Your task to perform on an android device: Go to Reddit.com Image 0: 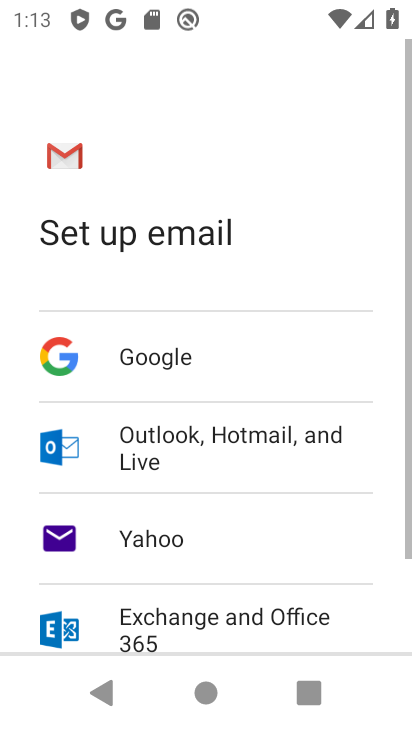
Step 0: press home button
Your task to perform on an android device: Go to Reddit.com Image 1: 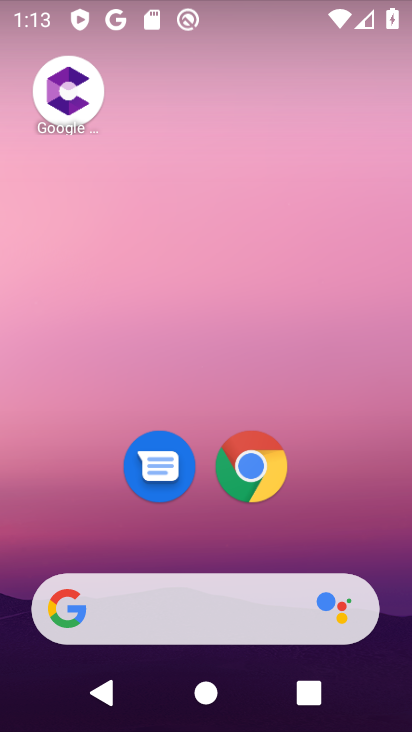
Step 1: click (182, 608)
Your task to perform on an android device: Go to Reddit.com Image 2: 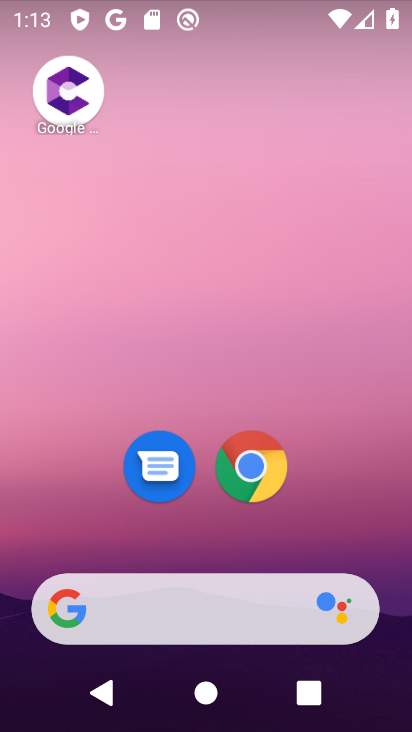
Step 2: click (158, 620)
Your task to perform on an android device: Go to Reddit.com Image 3: 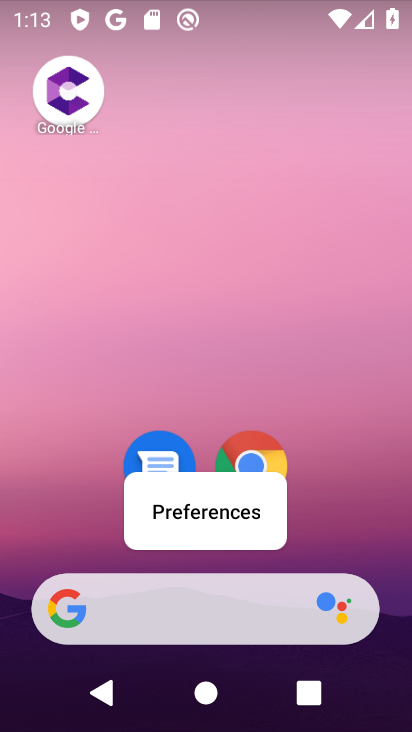
Step 3: click (141, 609)
Your task to perform on an android device: Go to Reddit.com Image 4: 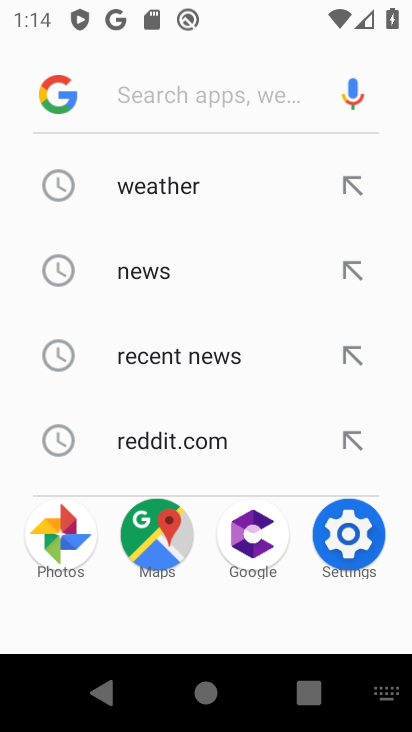
Step 4: type "Reddit.com"
Your task to perform on an android device: Go to Reddit.com Image 5: 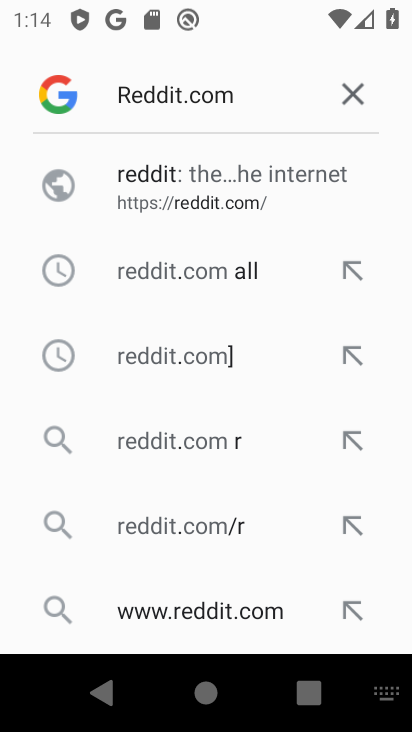
Step 5: click (145, 192)
Your task to perform on an android device: Go to Reddit.com Image 6: 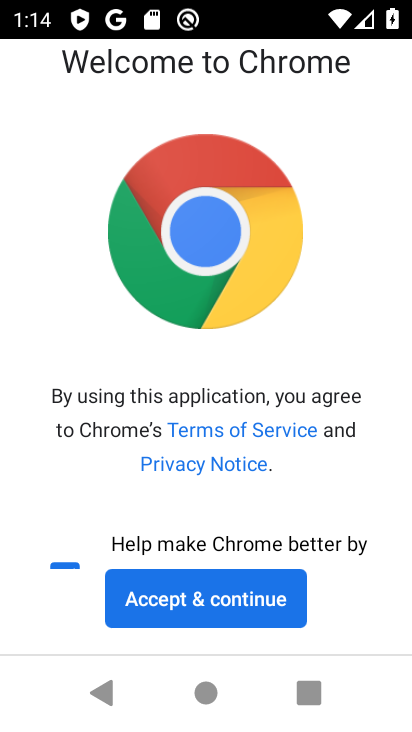
Step 6: click (259, 614)
Your task to perform on an android device: Go to Reddit.com Image 7: 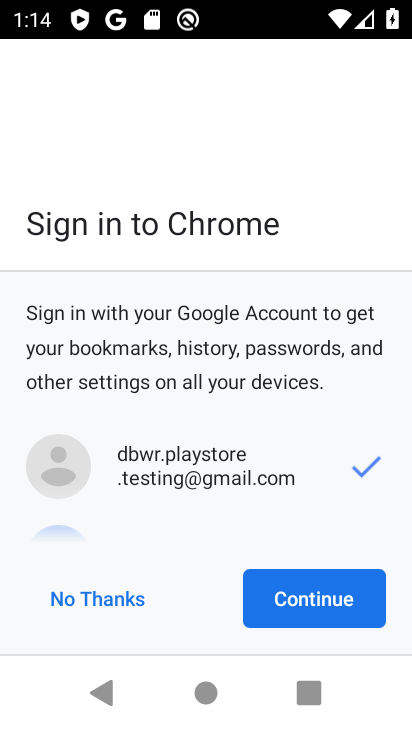
Step 7: click (329, 614)
Your task to perform on an android device: Go to Reddit.com Image 8: 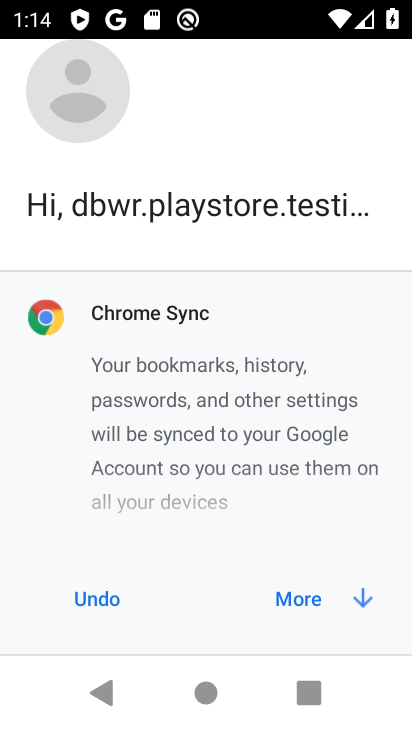
Step 8: click (330, 613)
Your task to perform on an android device: Go to Reddit.com Image 9: 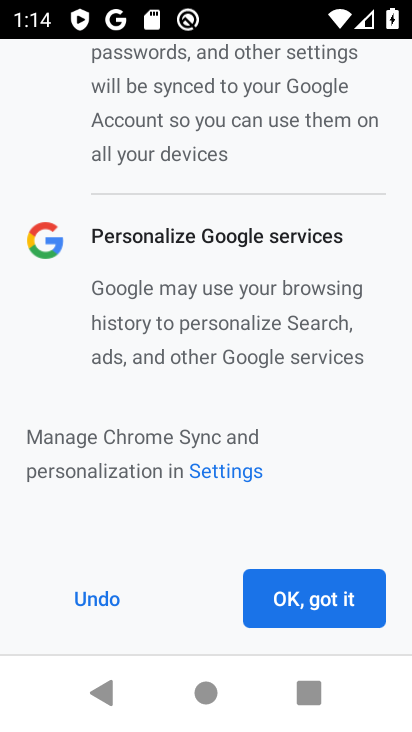
Step 9: click (320, 621)
Your task to perform on an android device: Go to Reddit.com Image 10: 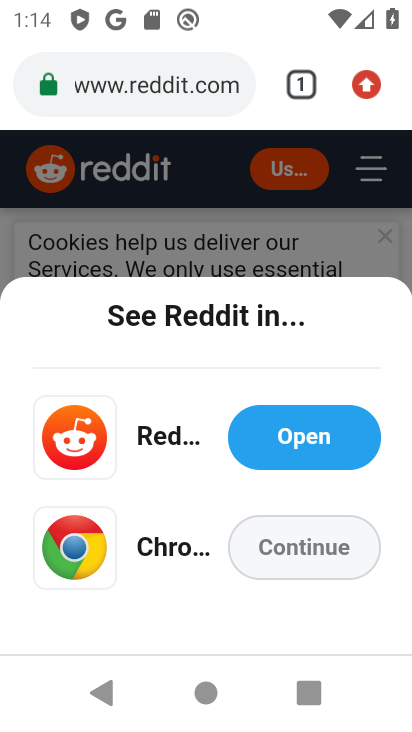
Step 10: click (315, 548)
Your task to perform on an android device: Go to Reddit.com Image 11: 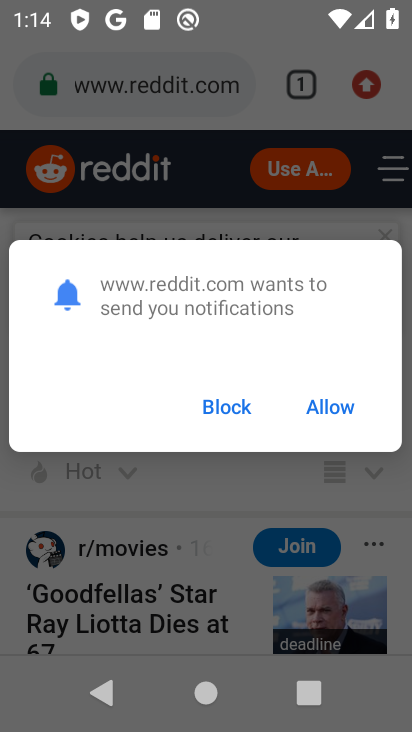
Step 11: click (331, 418)
Your task to perform on an android device: Go to Reddit.com Image 12: 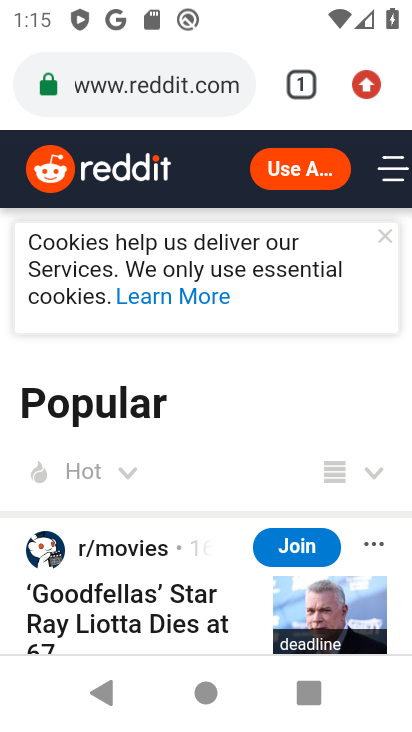
Step 12: task complete